Your task to perform on an android device: toggle sleep mode Image 0: 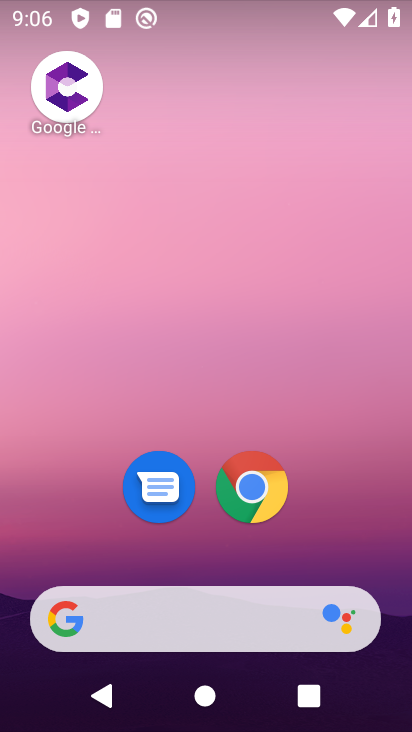
Step 0: drag from (304, 523) to (377, 2)
Your task to perform on an android device: toggle sleep mode Image 1: 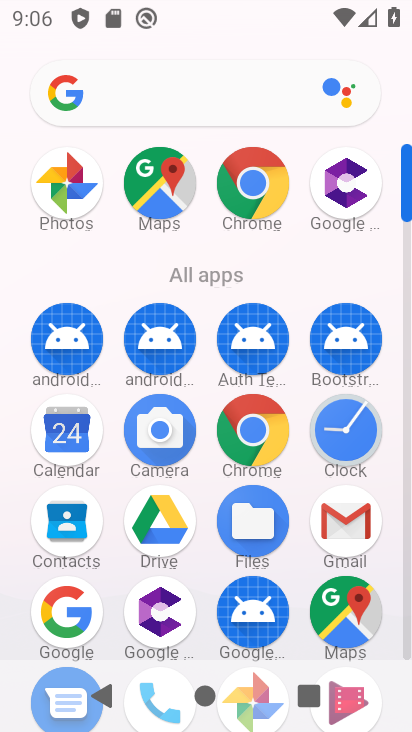
Step 1: click (408, 651)
Your task to perform on an android device: toggle sleep mode Image 2: 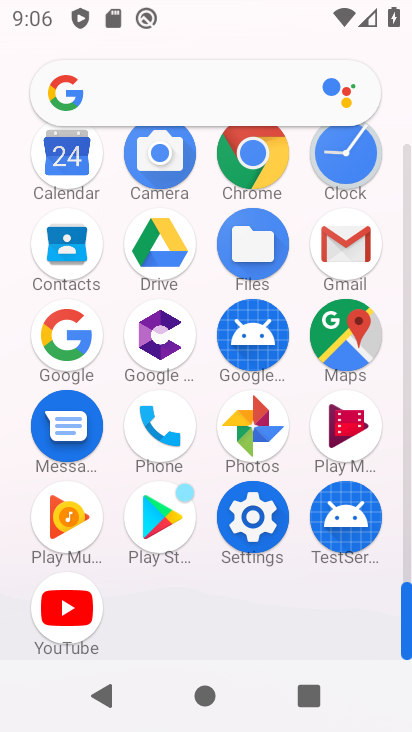
Step 2: click (273, 522)
Your task to perform on an android device: toggle sleep mode Image 3: 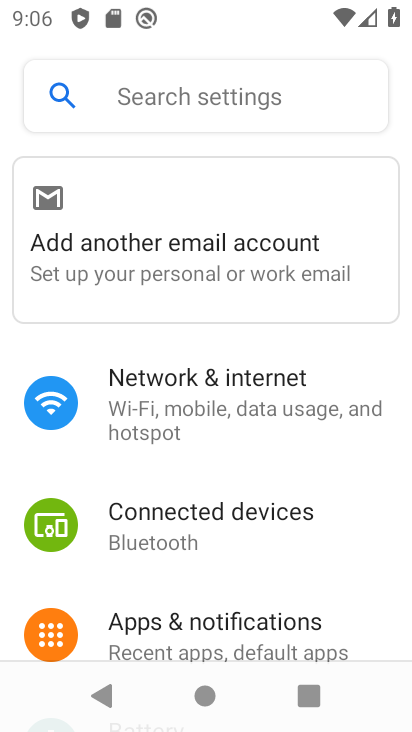
Step 3: drag from (283, 409) to (311, 220)
Your task to perform on an android device: toggle sleep mode Image 4: 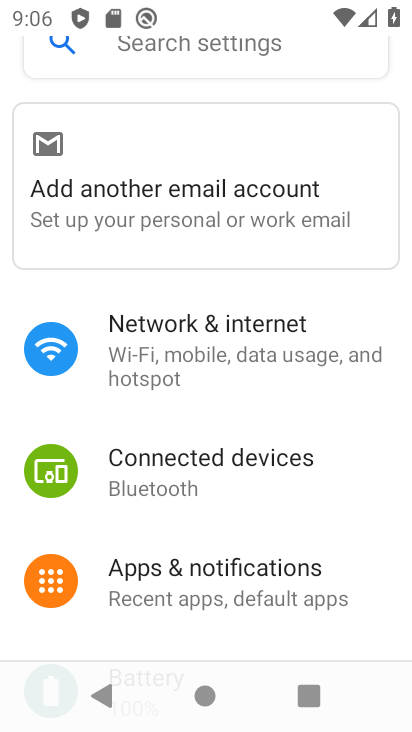
Step 4: drag from (285, 560) to (316, 296)
Your task to perform on an android device: toggle sleep mode Image 5: 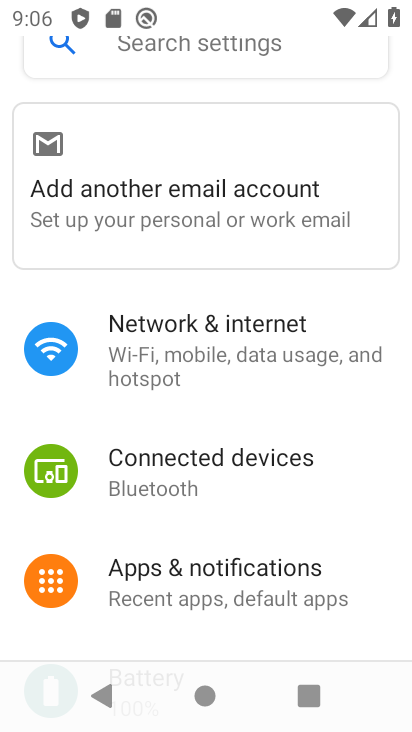
Step 5: drag from (286, 511) to (332, 247)
Your task to perform on an android device: toggle sleep mode Image 6: 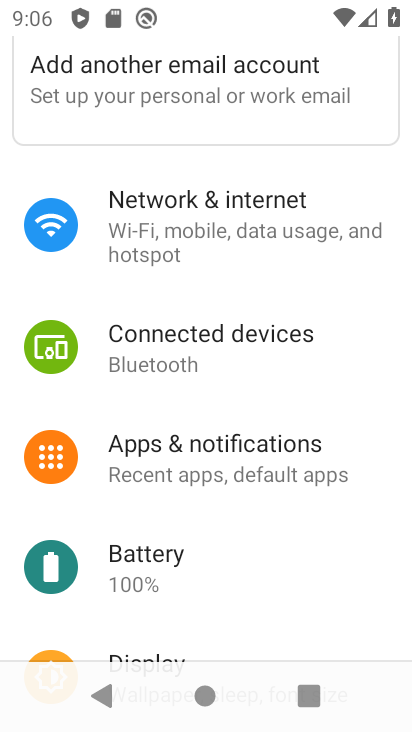
Step 6: drag from (273, 558) to (306, 236)
Your task to perform on an android device: toggle sleep mode Image 7: 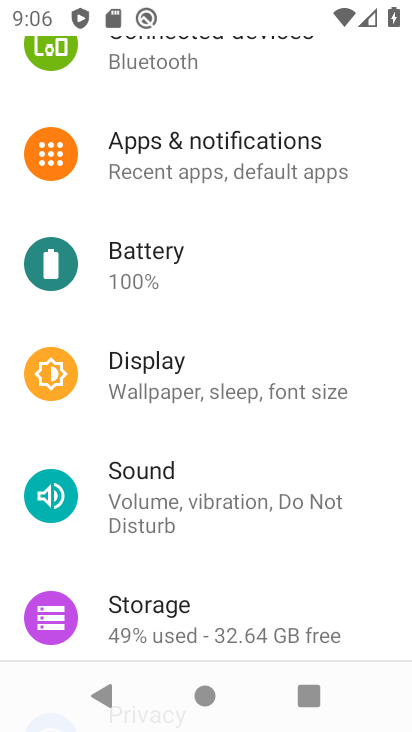
Step 7: click (170, 381)
Your task to perform on an android device: toggle sleep mode Image 8: 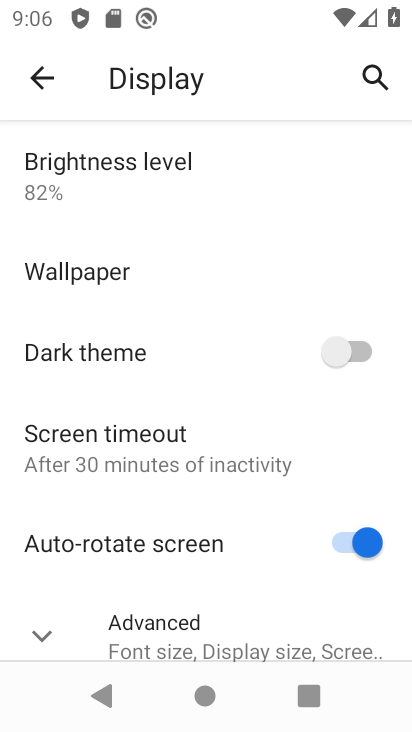
Step 8: task complete